Your task to perform on an android device: What's the weather today? Image 0: 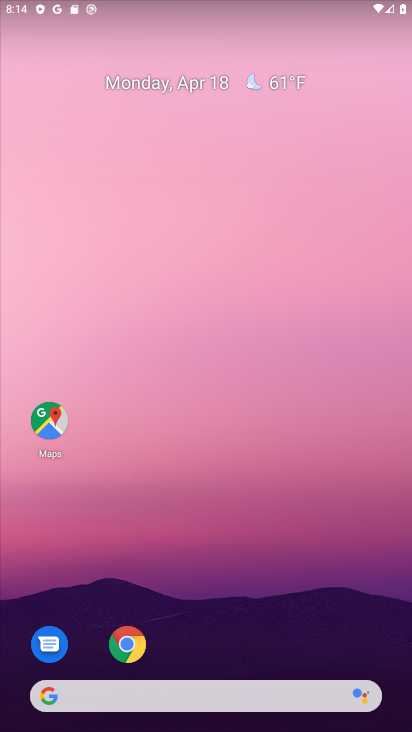
Step 0: drag from (27, 227) to (399, 319)
Your task to perform on an android device: What's the weather today? Image 1: 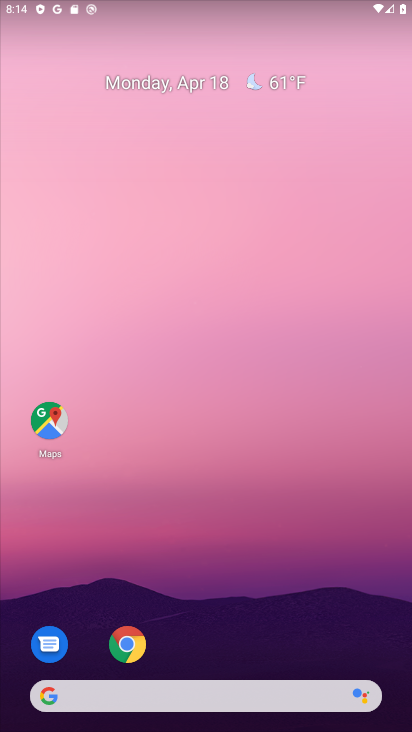
Step 1: drag from (18, 259) to (371, 311)
Your task to perform on an android device: What's the weather today? Image 2: 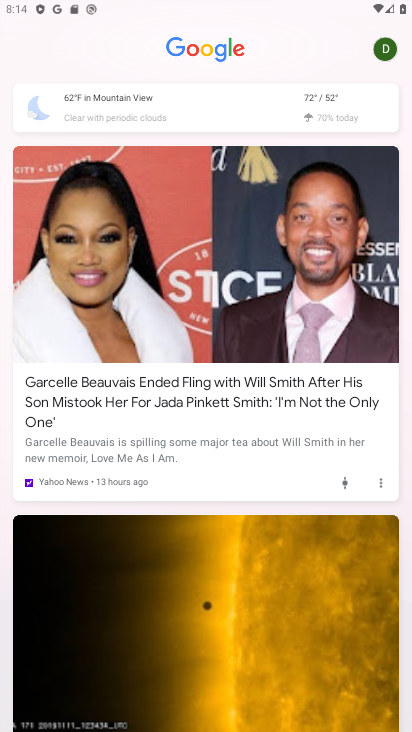
Step 2: click (89, 108)
Your task to perform on an android device: What's the weather today? Image 3: 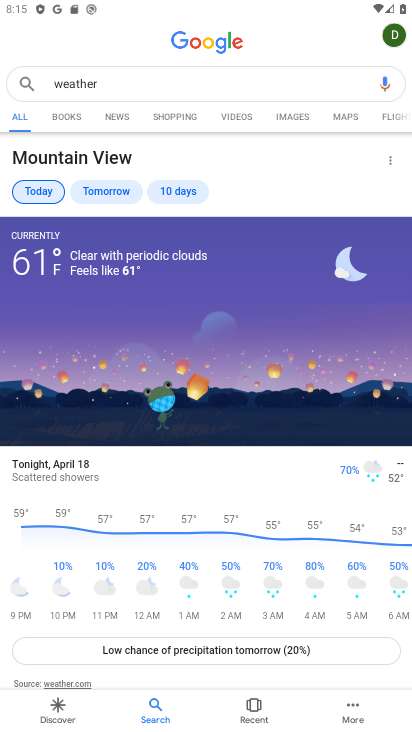
Step 3: task complete